Your task to perform on an android device: Is it going to rain this weekend? Image 0: 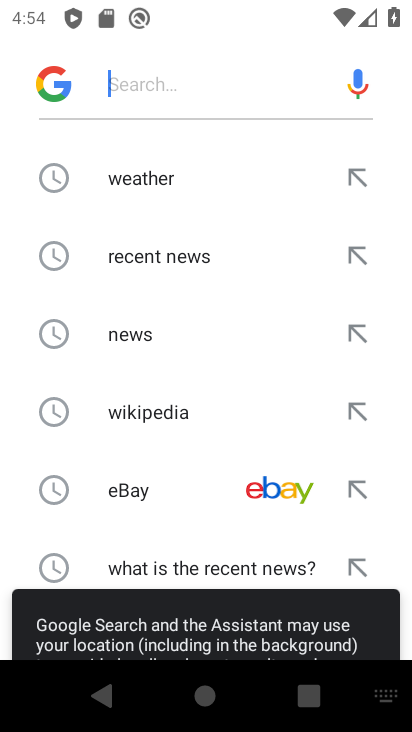
Step 0: click (175, 193)
Your task to perform on an android device: Is it going to rain this weekend? Image 1: 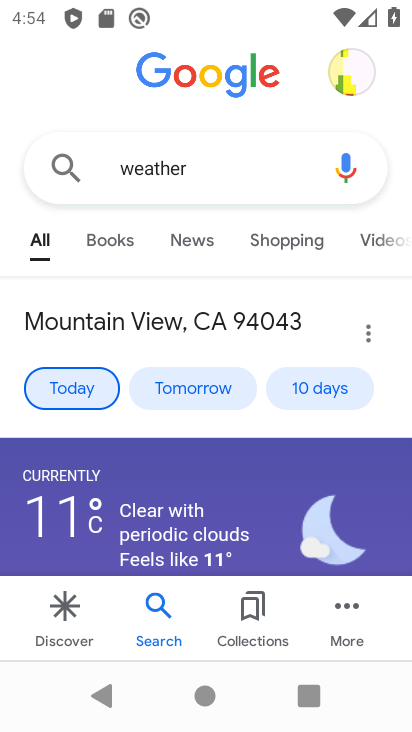
Step 1: click (325, 381)
Your task to perform on an android device: Is it going to rain this weekend? Image 2: 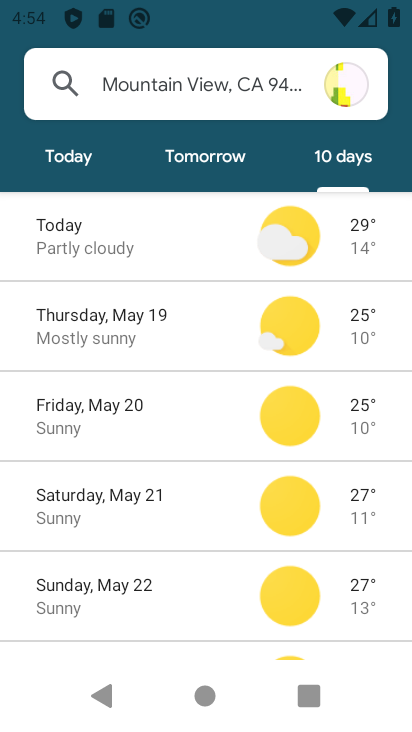
Step 2: task complete